Your task to perform on an android device: Go to location settings Image 0: 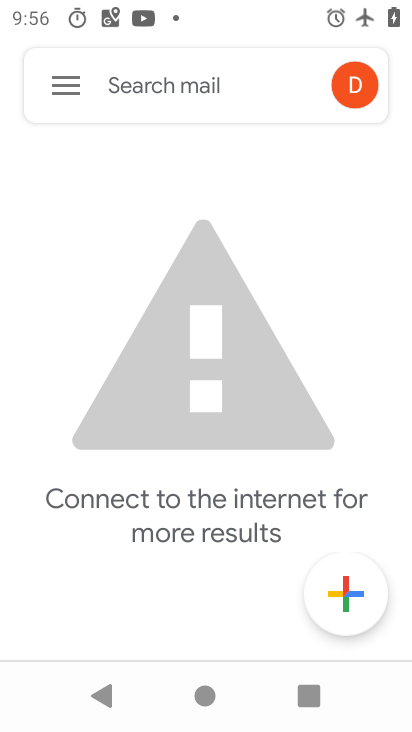
Step 0: press home button
Your task to perform on an android device: Go to location settings Image 1: 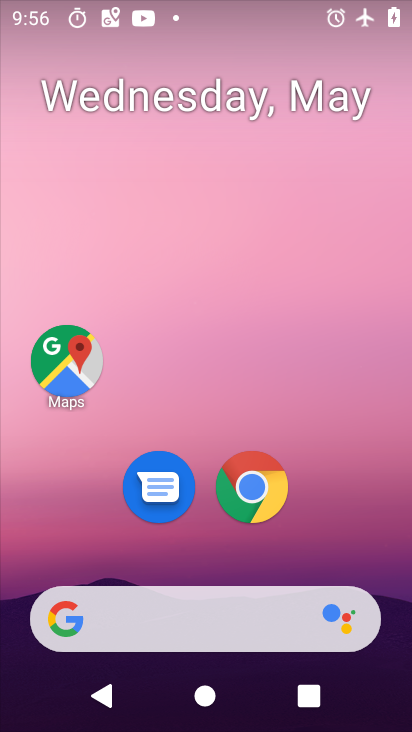
Step 1: drag from (199, 557) to (204, 179)
Your task to perform on an android device: Go to location settings Image 2: 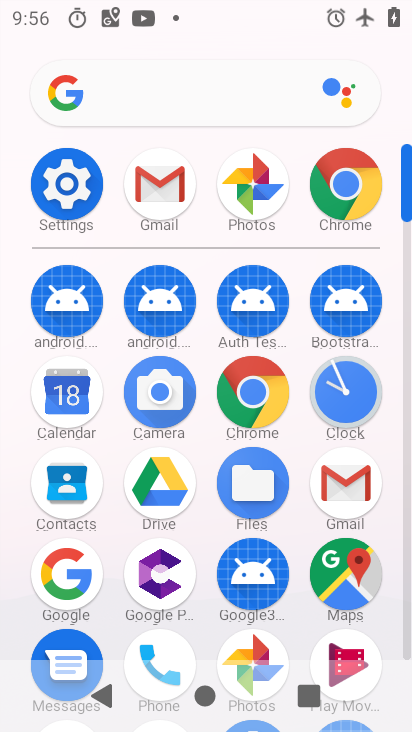
Step 2: click (84, 202)
Your task to perform on an android device: Go to location settings Image 3: 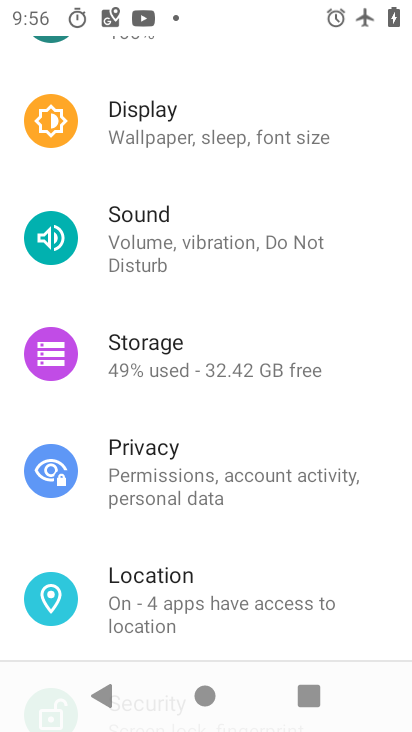
Step 3: click (219, 580)
Your task to perform on an android device: Go to location settings Image 4: 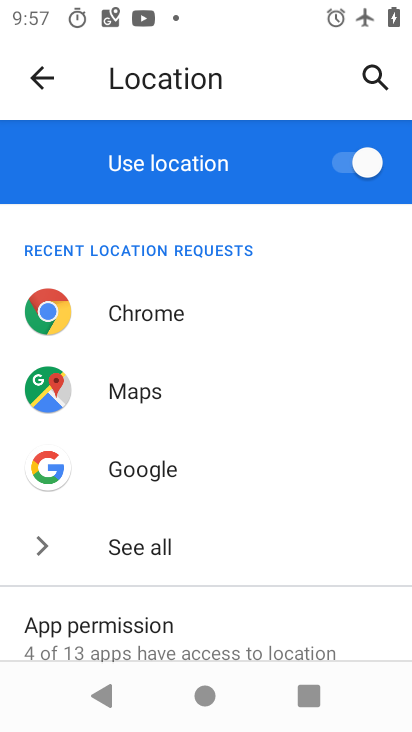
Step 4: task complete